Your task to perform on an android device: Open the Play Movies app and select the watchlist tab. Image 0: 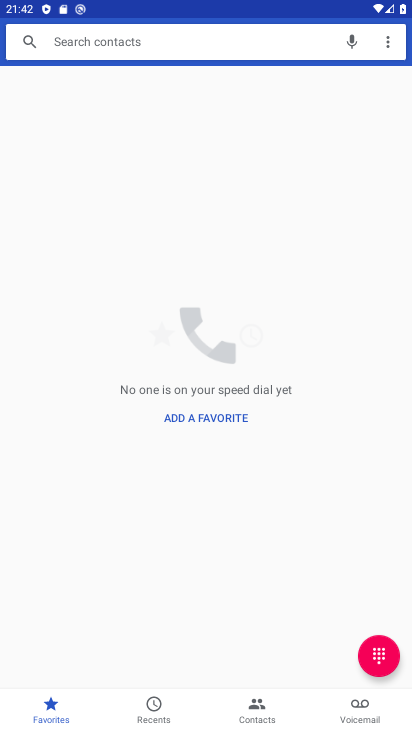
Step 0: press home button
Your task to perform on an android device: Open the Play Movies app and select the watchlist tab. Image 1: 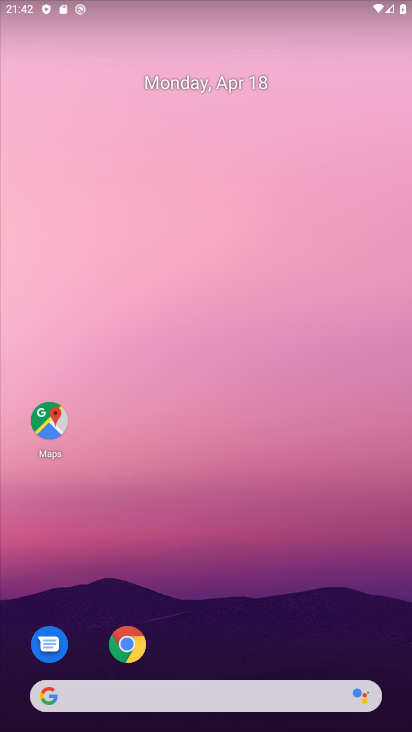
Step 1: drag from (216, 654) to (300, 184)
Your task to perform on an android device: Open the Play Movies app and select the watchlist tab. Image 2: 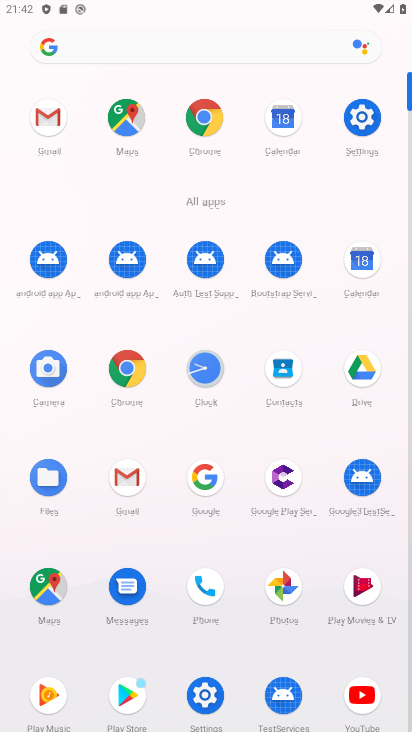
Step 2: click (356, 601)
Your task to perform on an android device: Open the Play Movies app and select the watchlist tab. Image 3: 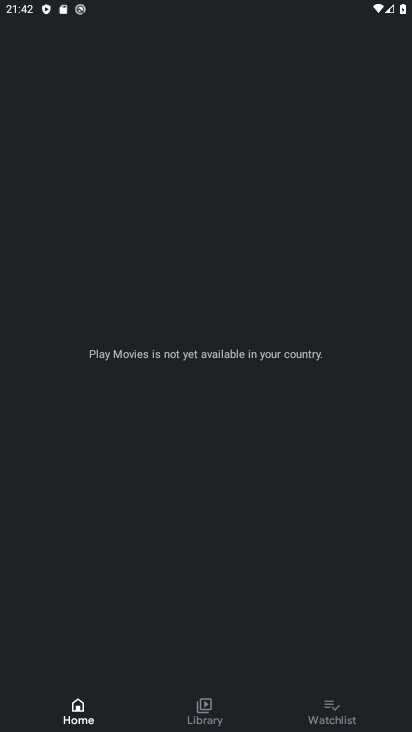
Step 3: click (342, 710)
Your task to perform on an android device: Open the Play Movies app and select the watchlist tab. Image 4: 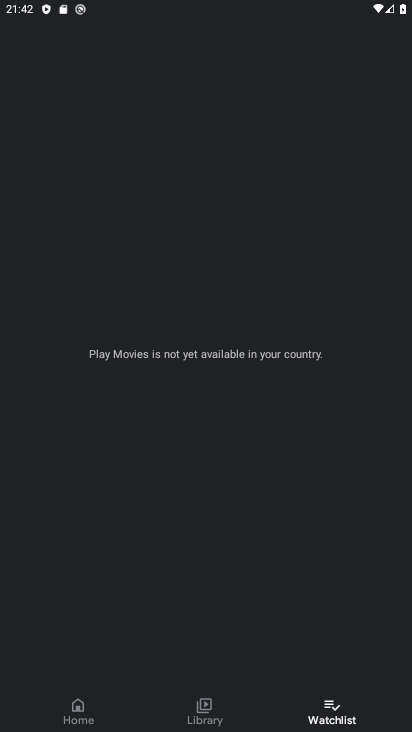
Step 4: task complete